Your task to perform on an android device: turn on sleep mode Image 0: 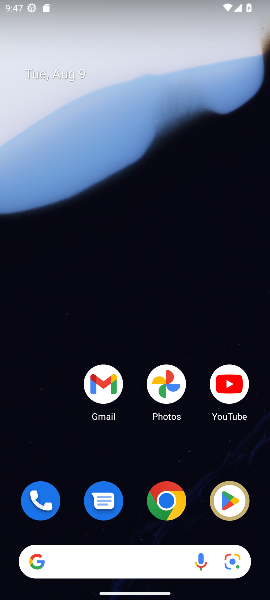
Step 0: drag from (142, 429) to (144, 211)
Your task to perform on an android device: turn on sleep mode Image 1: 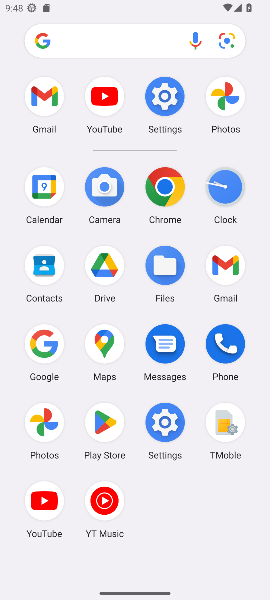
Step 1: click (163, 106)
Your task to perform on an android device: turn on sleep mode Image 2: 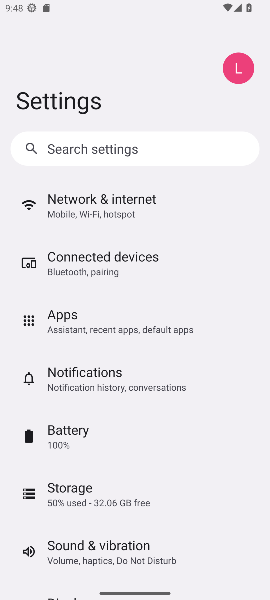
Step 2: task complete